Your task to perform on an android device: turn on location history Image 0: 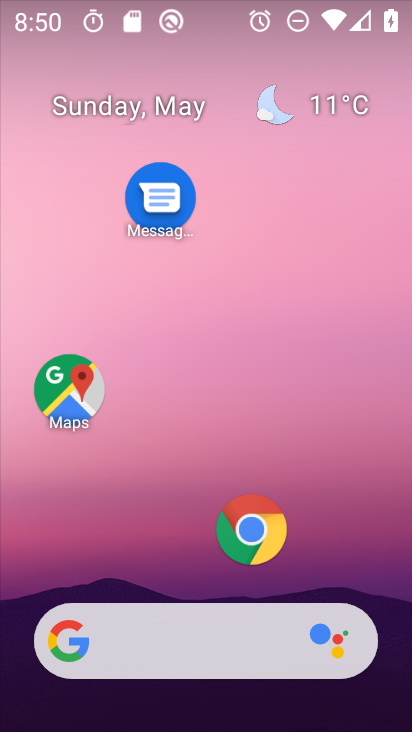
Step 0: drag from (194, 586) to (217, 2)
Your task to perform on an android device: turn on location history Image 1: 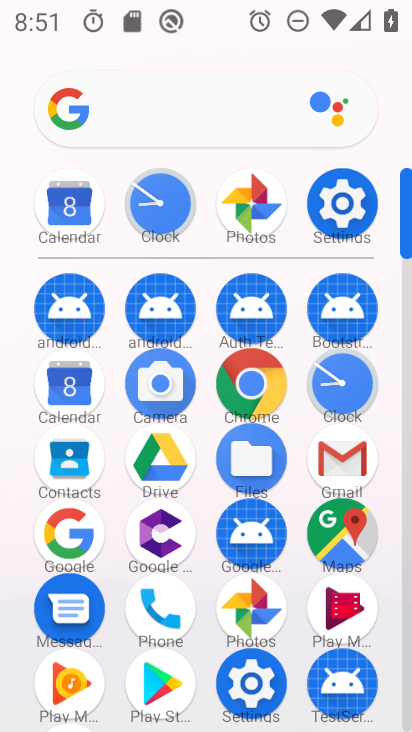
Step 1: click (338, 200)
Your task to perform on an android device: turn on location history Image 2: 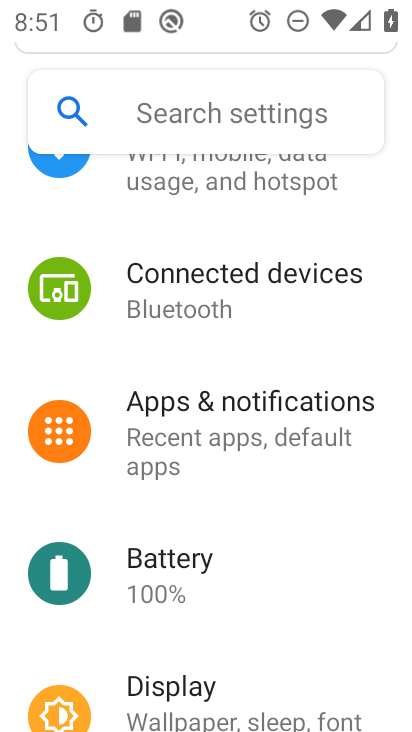
Step 2: drag from (249, 665) to (267, 146)
Your task to perform on an android device: turn on location history Image 3: 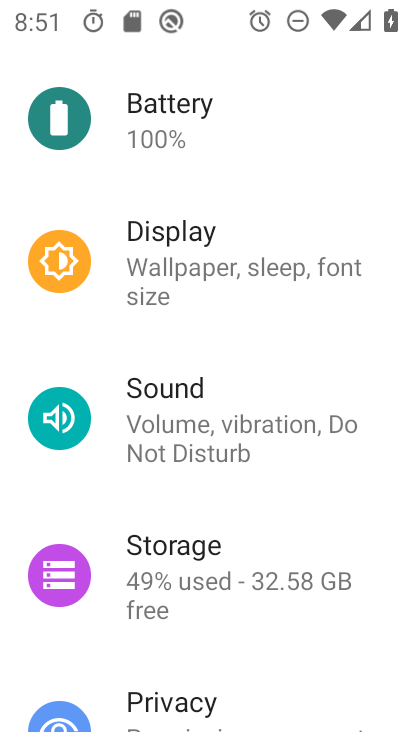
Step 3: drag from (220, 669) to (301, 148)
Your task to perform on an android device: turn on location history Image 4: 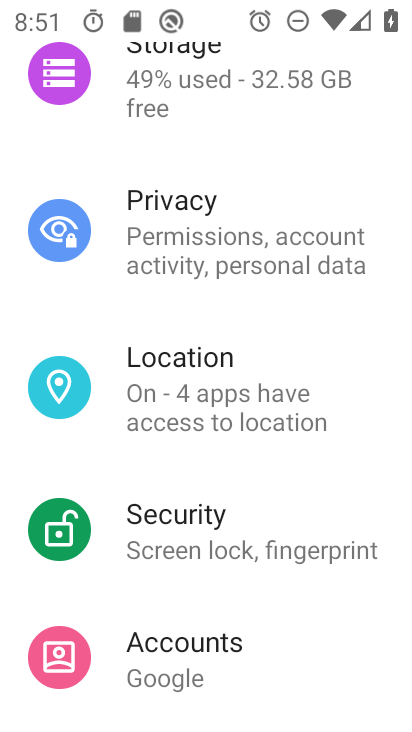
Step 4: click (256, 363)
Your task to perform on an android device: turn on location history Image 5: 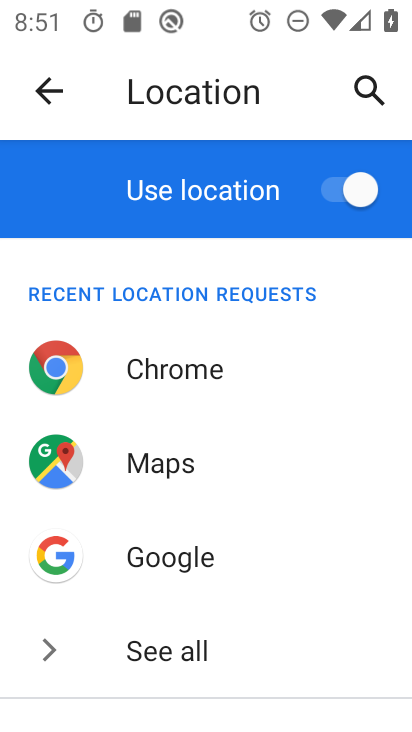
Step 5: drag from (230, 665) to (279, 52)
Your task to perform on an android device: turn on location history Image 6: 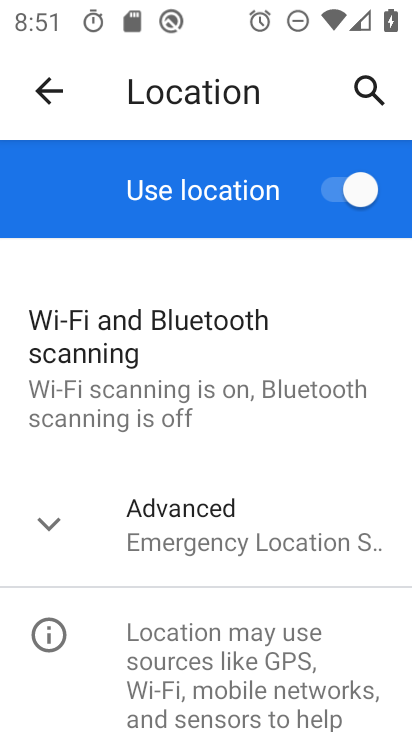
Step 6: click (50, 519)
Your task to perform on an android device: turn on location history Image 7: 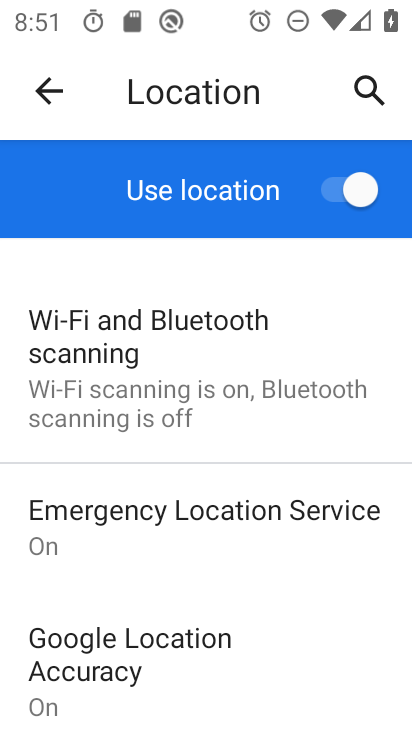
Step 7: drag from (219, 681) to (231, 162)
Your task to perform on an android device: turn on location history Image 8: 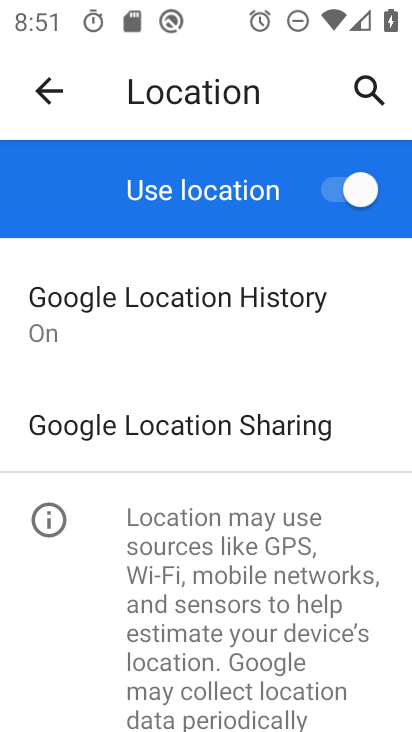
Step 8: click (153, 315)
Your task to perform on an android device: turn on location history Image 9: 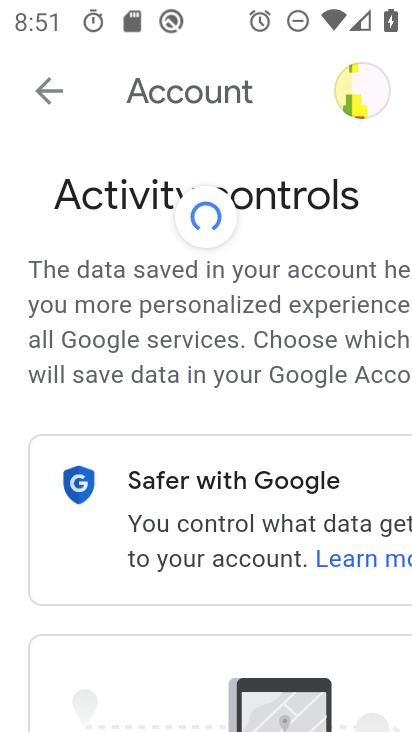
Step 9: drag from (189, 626) to (240, 106)
Your task to perform on an android device: turn on location history Image 10: 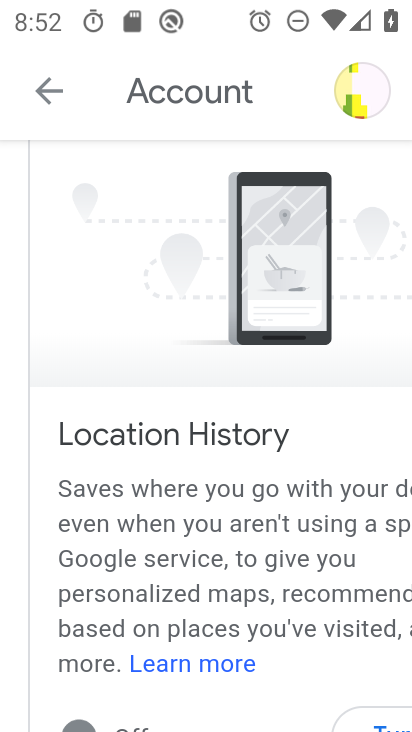
Step 10: drag from (231, 589) to (261, 72)
Your task to perform on an android device: turn on location history Image 11: 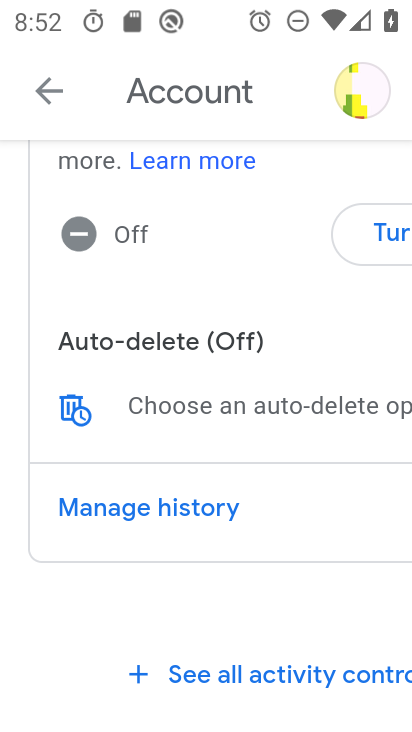
Step 11: click (386, 227)
Your task to perform on an android device: turn on location history Image 12: 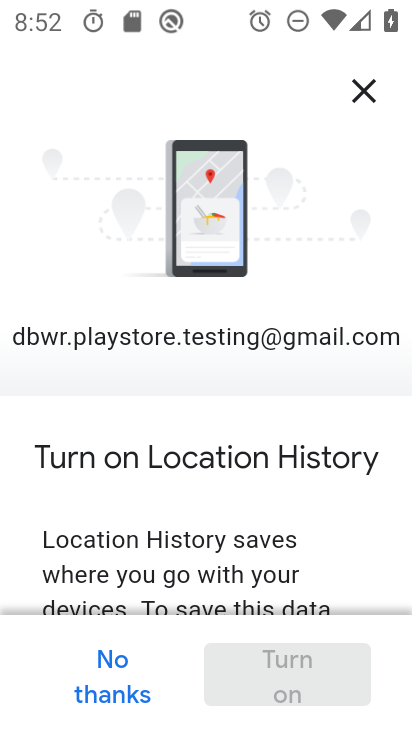
Step 12: drag from (297, 567) to (342, 46)
Your task to perform on an android device: turn on location history Image 13: 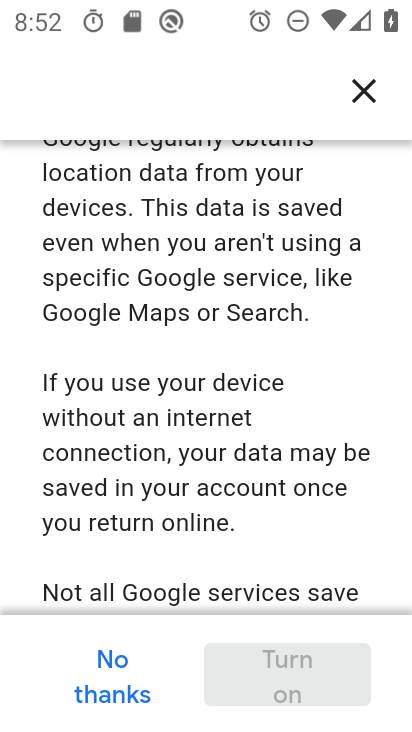
Step 13: drag from (264, 527) to (302, 42)
Your task to perform on an android device: turn on location history Image 14: 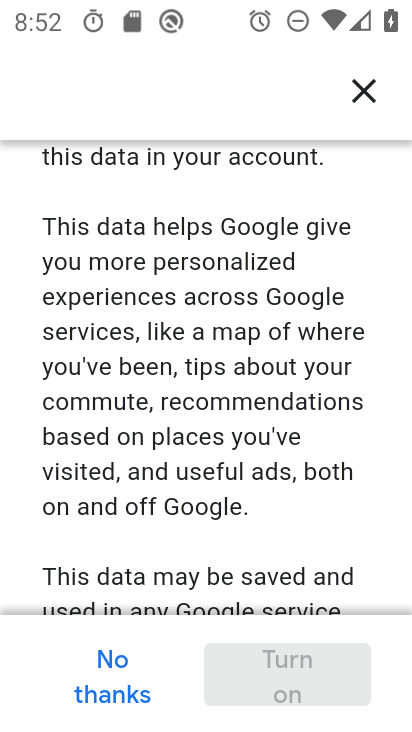
Step 14: drag from (259, 573) to (270, 66)
Your task to perform on an android device: turn on location history Image 15: 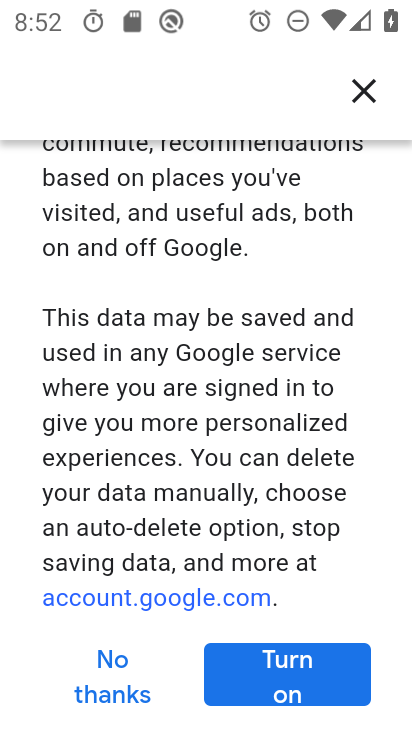
Step 15: click (294, 667)
Your task to perform on an android device: turn on location history Image 16: 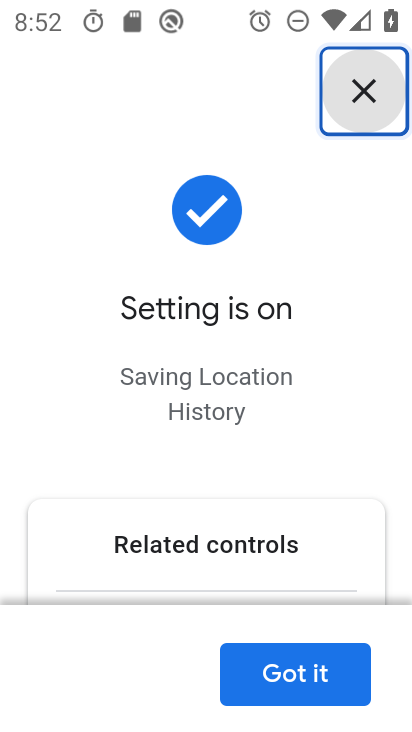
Step 16: click (310, 678)
Your task to perform on an android device: turn on location history Image 17: 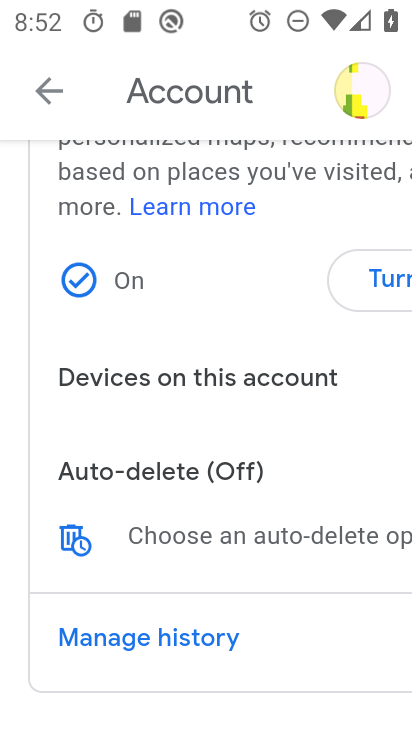
Step 17: task complete